Your task to perform on an android device: Open the map Image 0: 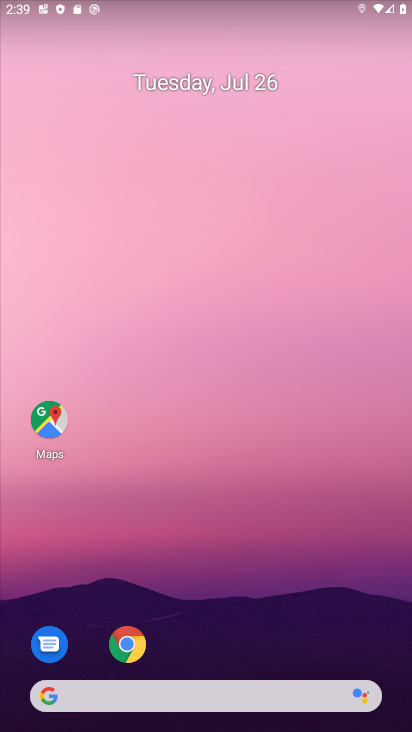
Step 0: press home button
Your task to perform on an android device: Open the map Image 1: 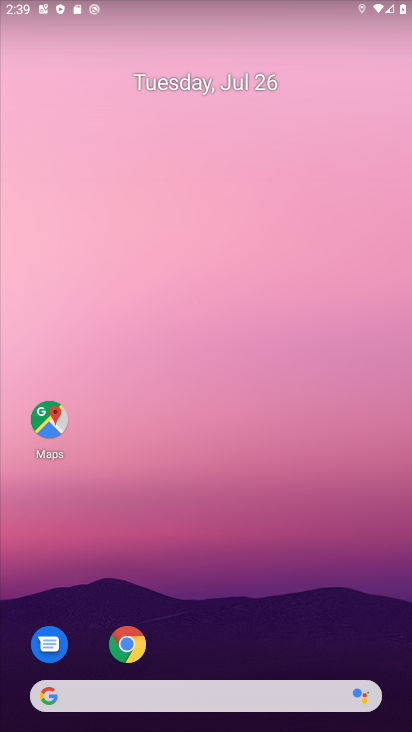
Step 1: click (40, 415)
Your task to perform on an android device: Open the map Image 2: 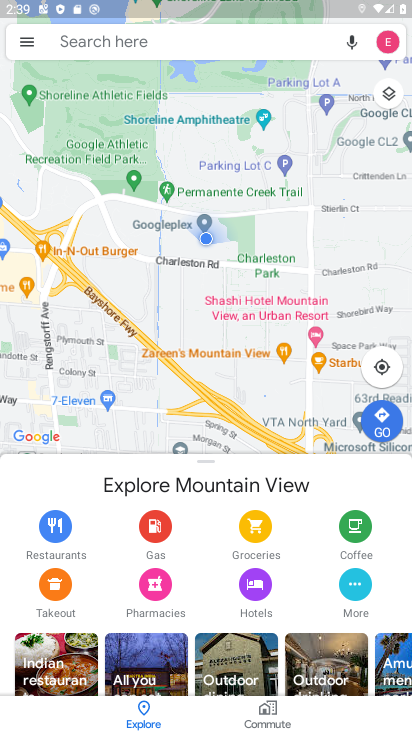
Step 2: task complete